Your task to perform on an android device: Go to Amazon Image 0: 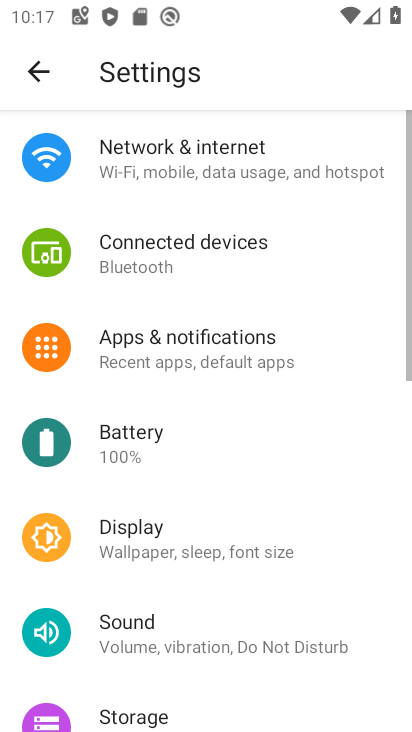
Step 0: press home button
Your task to perform on an android device: Go to Amazon Image 1: 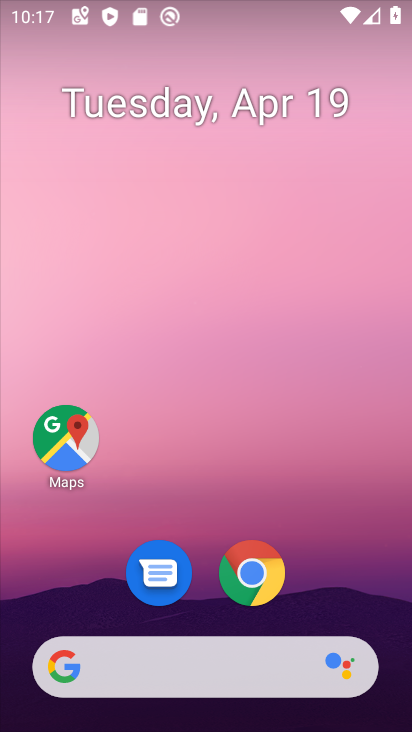
Step 1: click (268, 570)
Your task to perform on an android device: Go to Amazon Image 2: 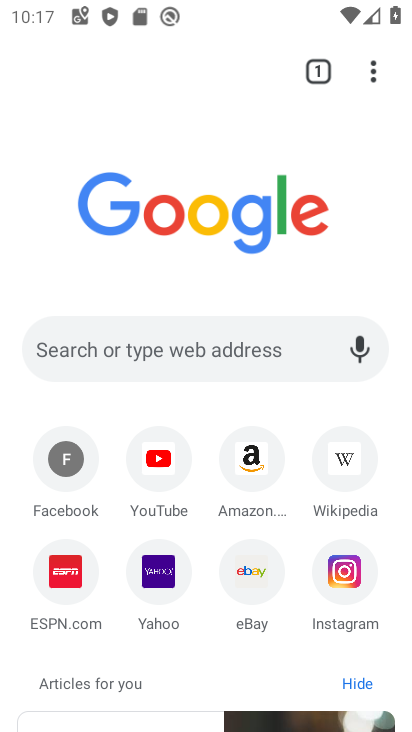
Step 2: click (254, 465)
Your task to perform on an android device: Go to Amazon Image 3: 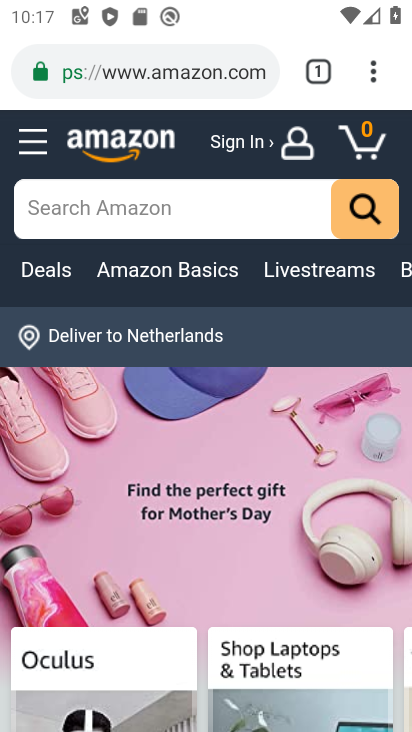
Step 3: task complete